Your task to perform on an android device: turn off sleep mode Image 0: 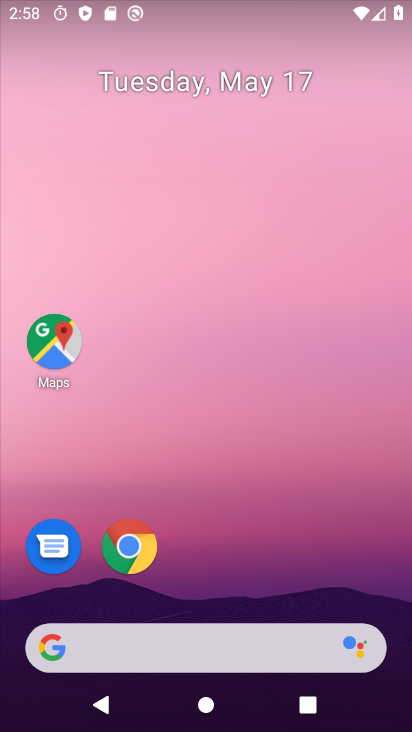
Step 0: drag from (215, 576) to (242, 172)
Your task to perform on an android device: turn off sleep mode Image 1: 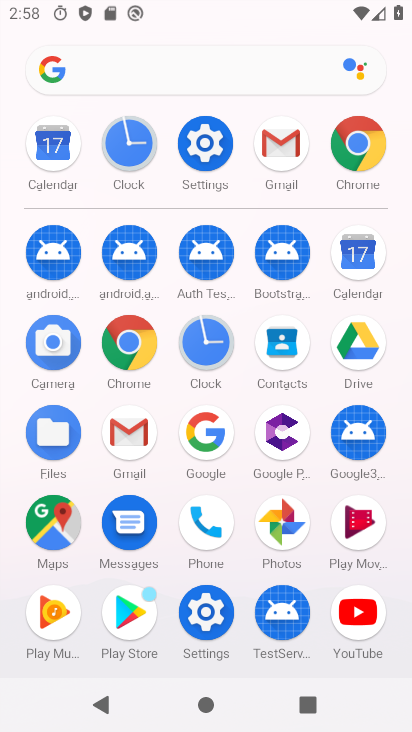
Step 1: click (209, 165)
Your task to perform on an android device: turn off sleep mode Image 2: 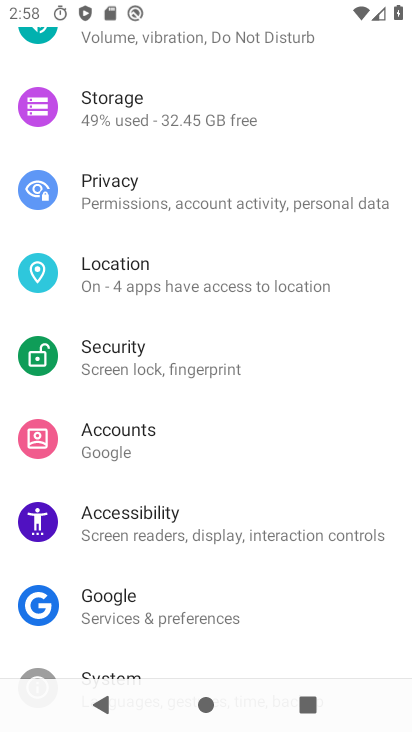
Step 2: drag from (159, 500) to (150, 563)
Your task to perform on an android device: turn off sleep mode Image 3: 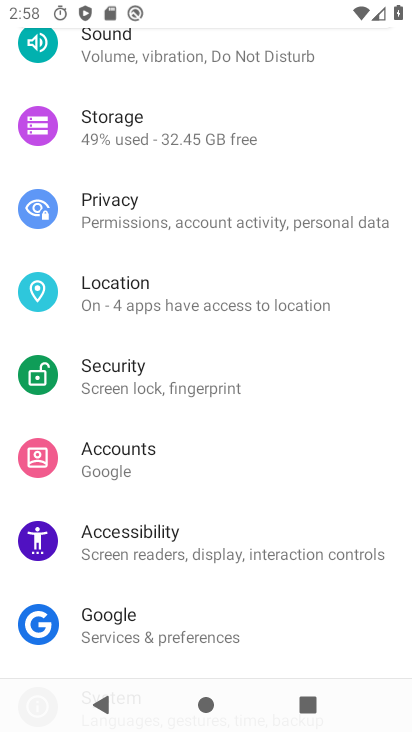
Step 3: drag from (188, 253) to (172, 730)
Your task to perform on an android device: turn off sleep mode Image 4: 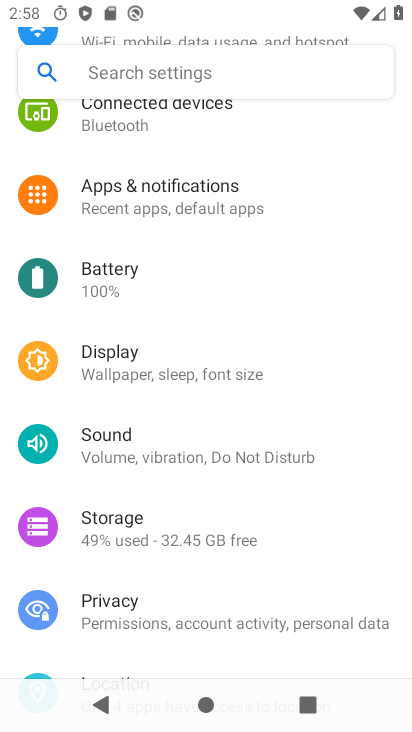
Step 4: click (150, 368)
Your task to perform on an android device: turn off sleep mode Image 5: 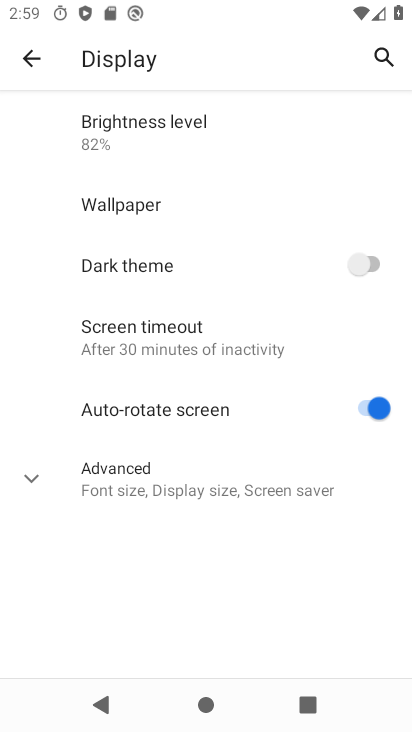
Step 5: click (224, 493)
Your task to perform on an android device: turn off sleep mode Image 6: 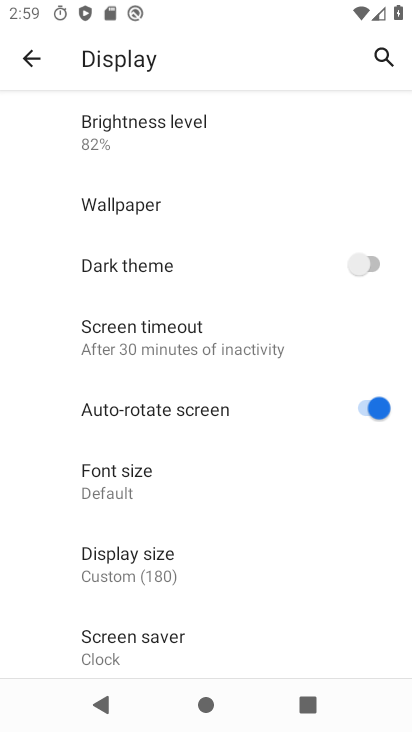
Step 6: task complete